Your task to perform on an android device: turn smart compose on in the gmail app Image 0: 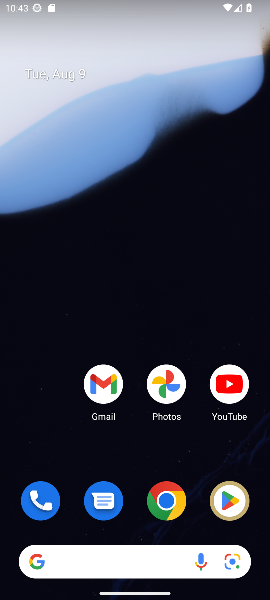
Step 0: click (98, 383)
Your task to perform on an android device: turn smart compose on in the gmail app Image 1: 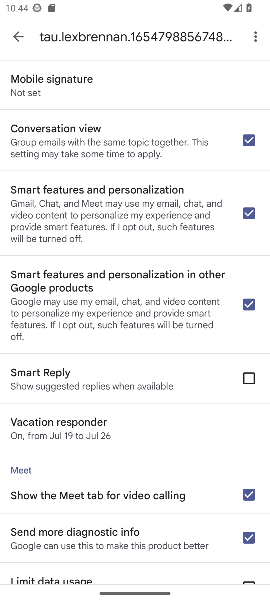
Step 1: task complete